Your task to perform on an android device: empty trash in the gmail app Image 0: 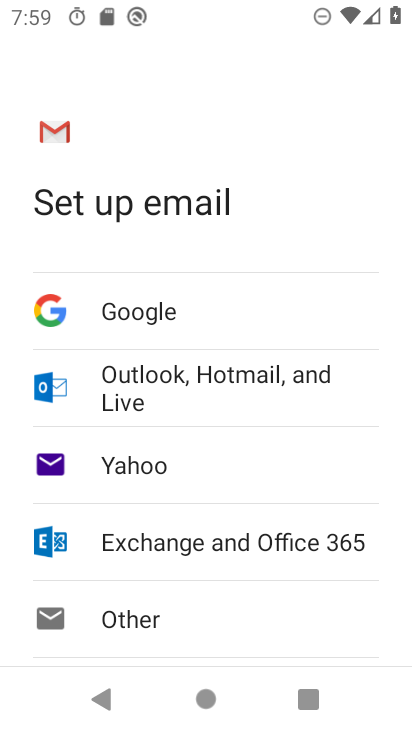
Step 0: press home button
Your task to perform on an android device: empty trash in the gmail app Image 1: 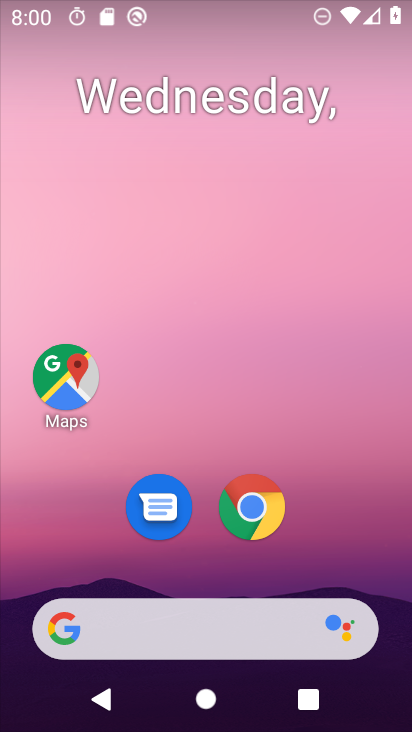
Step 1: drag from (256, 662) to (200, 225)
Your task to perform on an android device: empty trash in the gmail app Image 2: 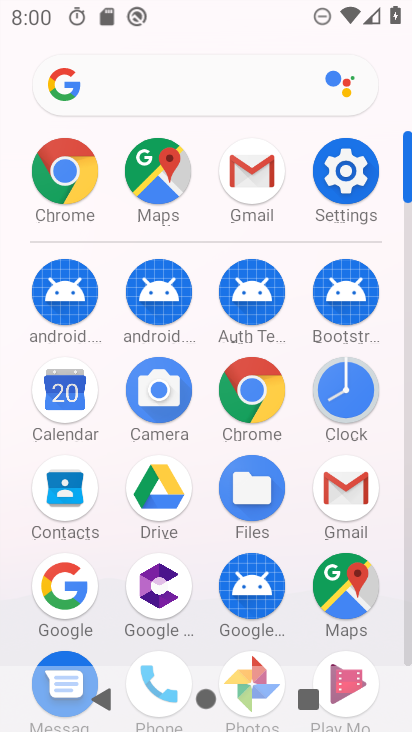
Step 2: click (237, 175)
Your task to perform on an android device: empty trash in the gmail app Image 3: 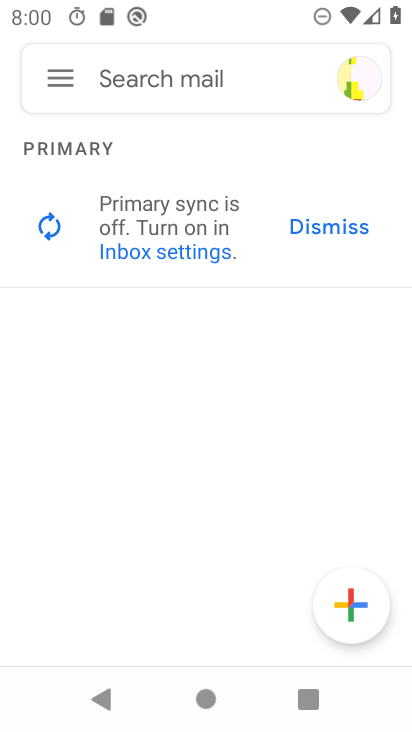
Step 3: click (66, 96)
Your task to perform on an android device: empty trash in the gmail app Image 4: 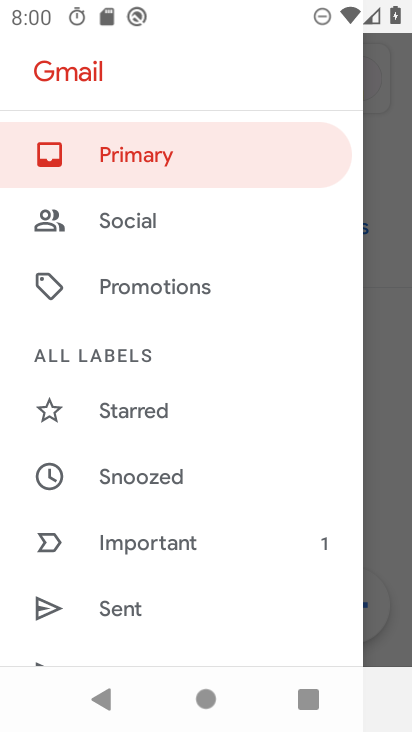
Step 4: drag from (144, 448) to (199, 234)
Your task to perform on an android device: empty trash in the gmail app Image 5: 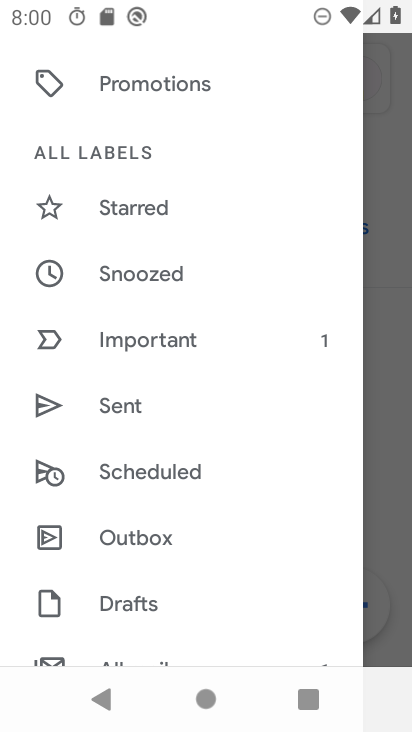
Step 5: drag from (153, 444) to (234, 253)
Your task to perform on an android device: empty trash in the gmail app Image 6: 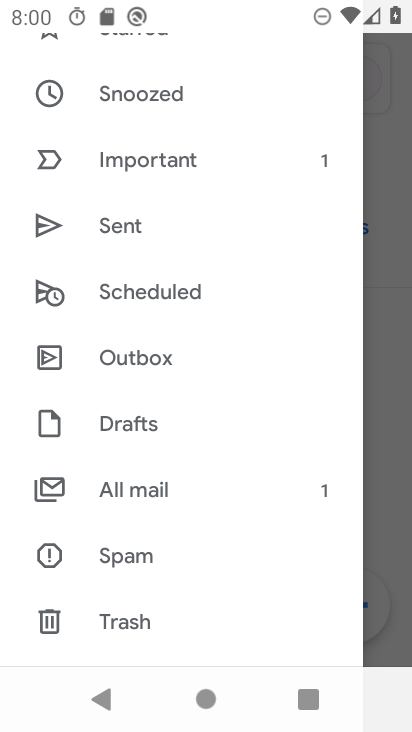
Step 6: click (121, 618)
Your task to perform on an android device: empty trash in the gmail app Image 7: 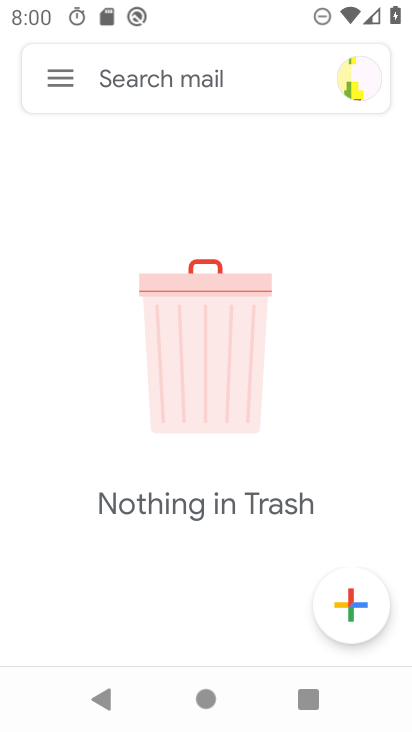
Step 7: task complete